Your task to perform on an android device: turn off improve location accuracy Image 0: 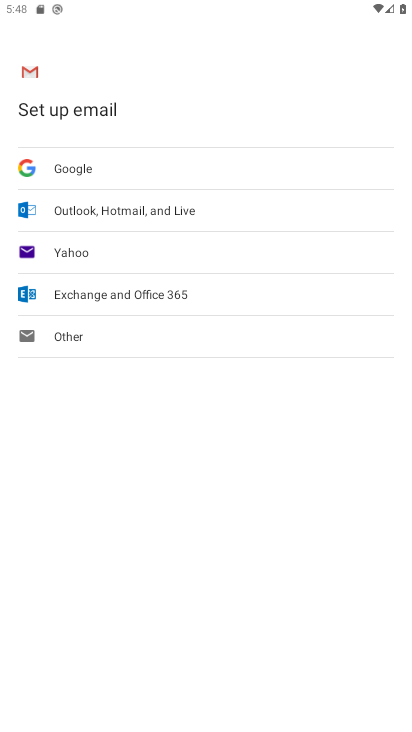
Step 0: press home button
Your task to perform on an android device: turn off improve location accuracy Image 1: 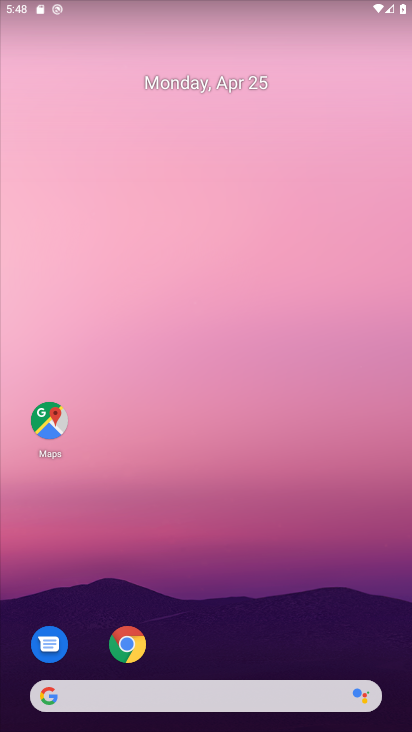
Step 1: drag from (217, 561) to (199, 35)
Your task to perform on an android device: turn off improve location accuracy Image 2: 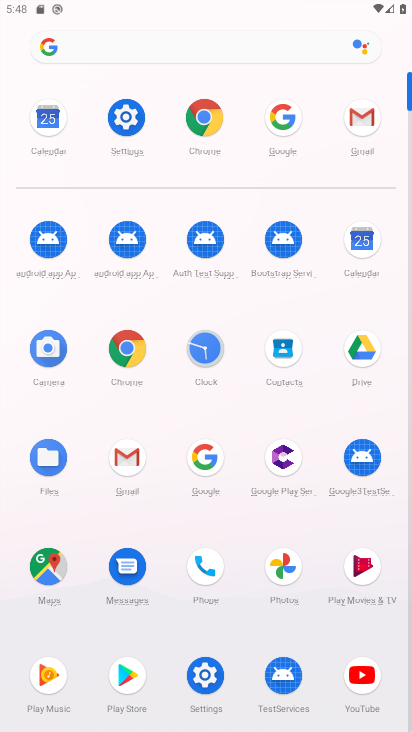
Step 2: click (128, 127)
Your task to perform on an android device: turn off improve location accuracy Image 3: 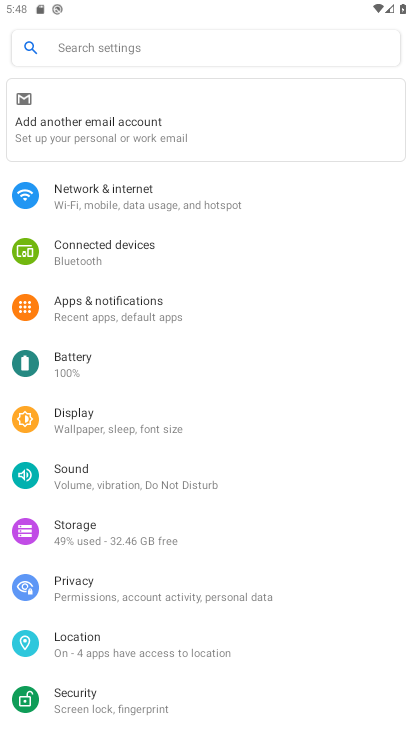
Step 3: click (124, 631)
Your task to perform on an android device: turn off improve location accuracy Image 4: 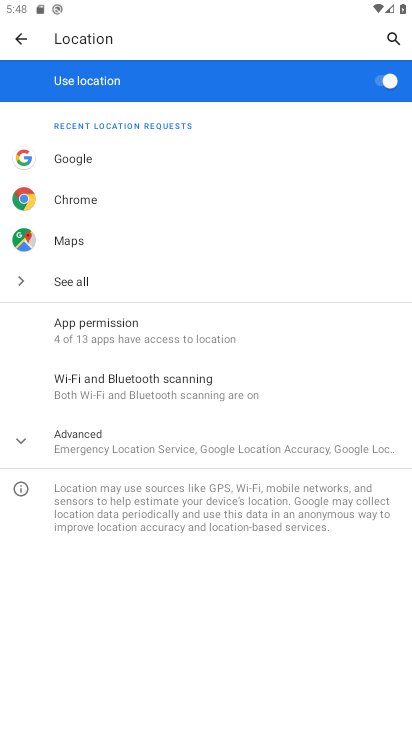
Step 4: click (161, 447)
Your task to perform on an android device: turn off improve location accuracy Image 5: 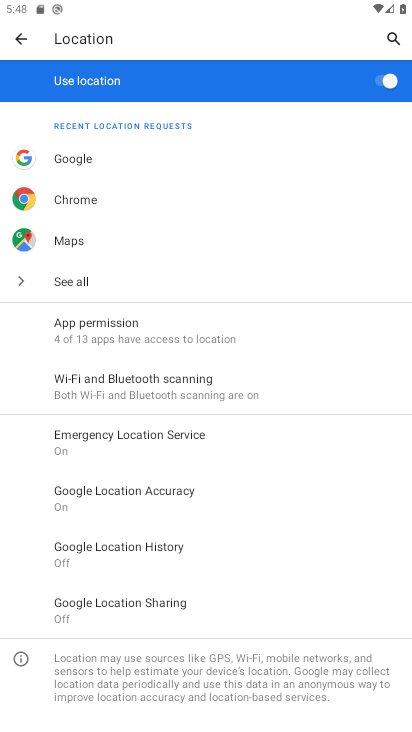
Step 5: click (190, 493)
Your task to perform on an android device: turn off improve location accuracy Image 6: 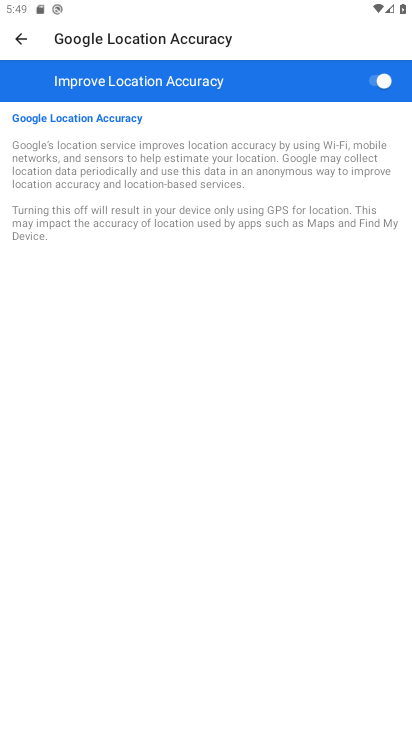
Step 6: click (375, 85)
Your task to perform on an android device: turn off improve location accuracy Image 7: 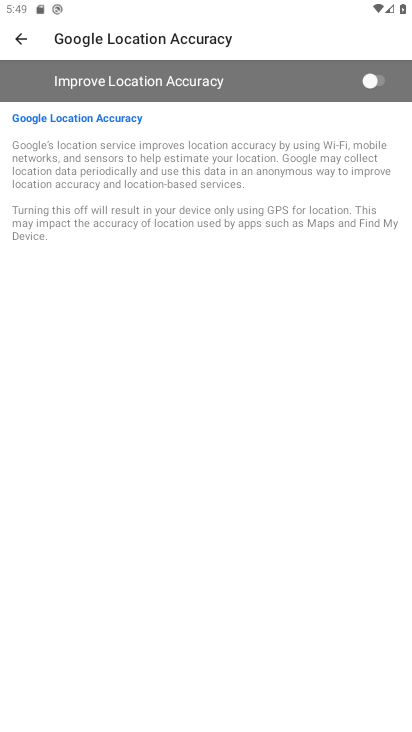
Step 7: task complete